Your task to perform on an android device: empty trash in google photos Image 0: 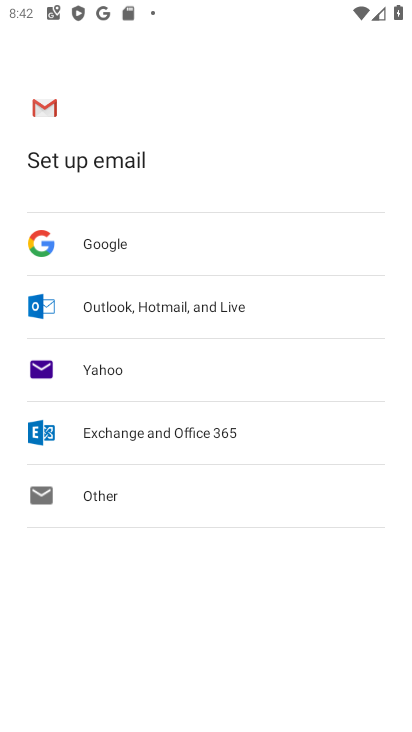
Step 0: press home button
Your task to perform on an android device: empty trash in google photos Image 1: 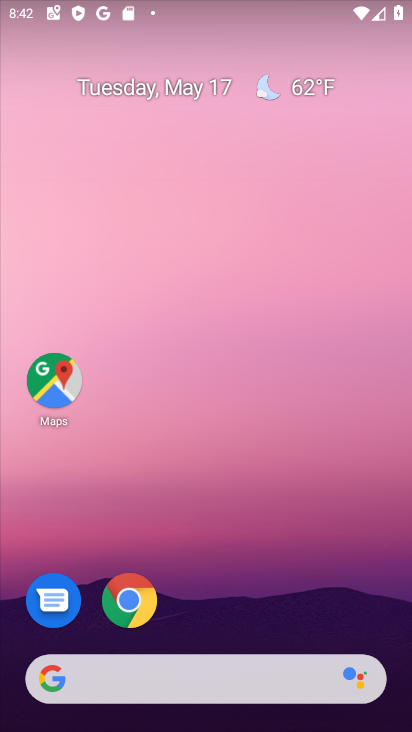
Step 1: drag from (205, 725) to (207, 173)
Your task to perform on an android device: empty trash in google photos Image 2: 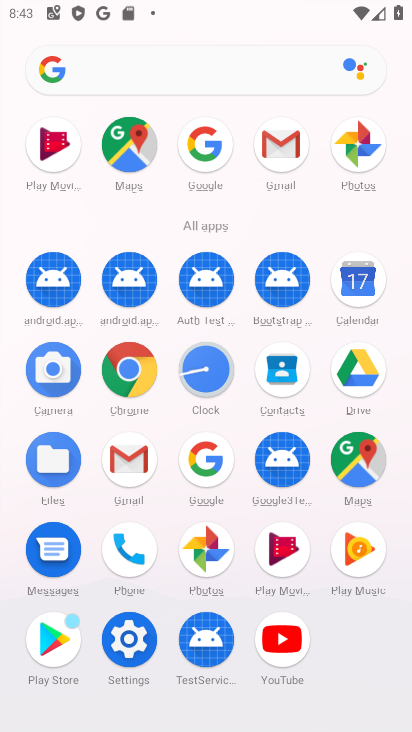
Step 2: click (205, 544)
Your task to perform on an android device: empty trash in google photos Image 3: 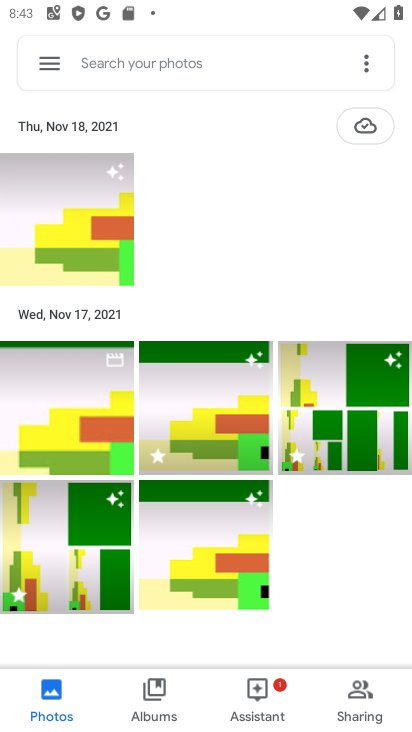
Step 3: click (42, 64)
Your task to perform on an android device: empty trash in google photos Image 4: 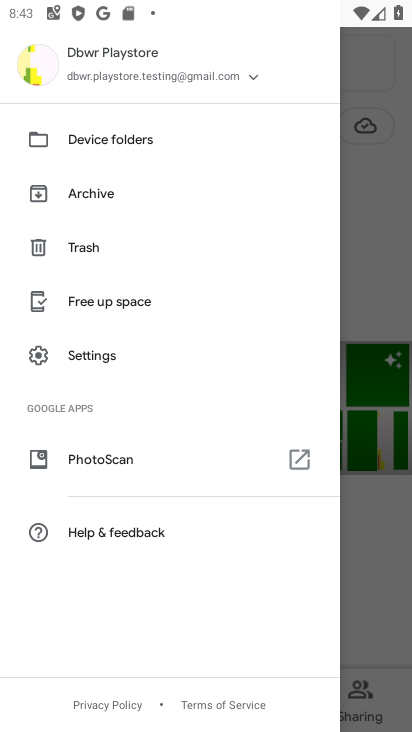
Step 4: click (80, 245)
Your task to perform on an android device: empty trash in google photos Image 5: 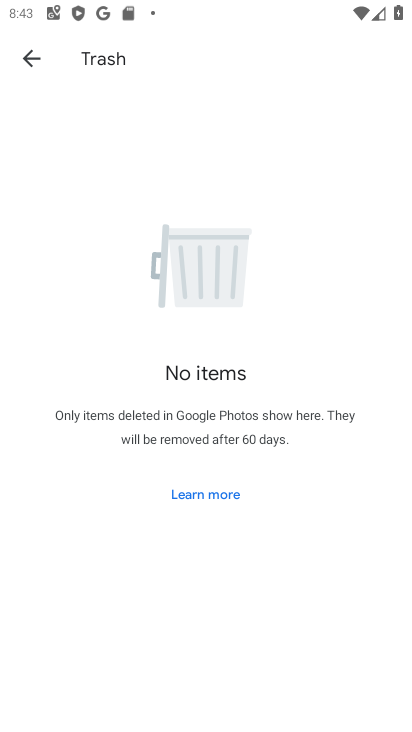
Step 5: task complete